Your task to perform on an android device: move a message to another label in the gmail app Image 0: 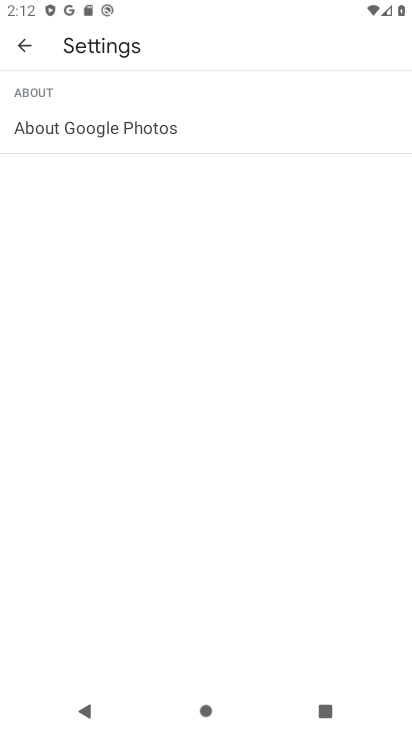
Step 0: press home button
Your task to perform on an android device: move a message to another label in the gmail app Image 1: 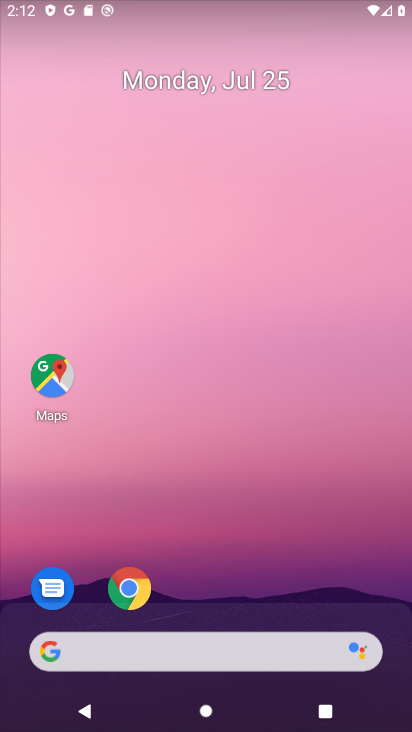
Step 1: drag from (217, 622) to (221, 3)
Your task to perform on an android device: move a message to another label in the gmail app Image 2: 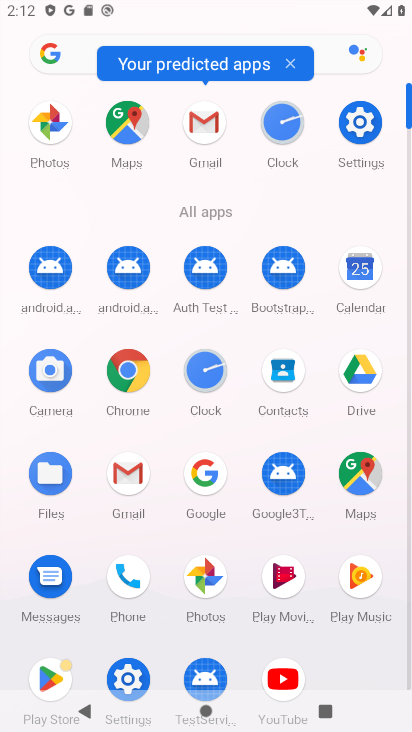
Step 2: click (125, 464)
Your task to perform on an android device: move a message to another label in the gmail app Image 3: 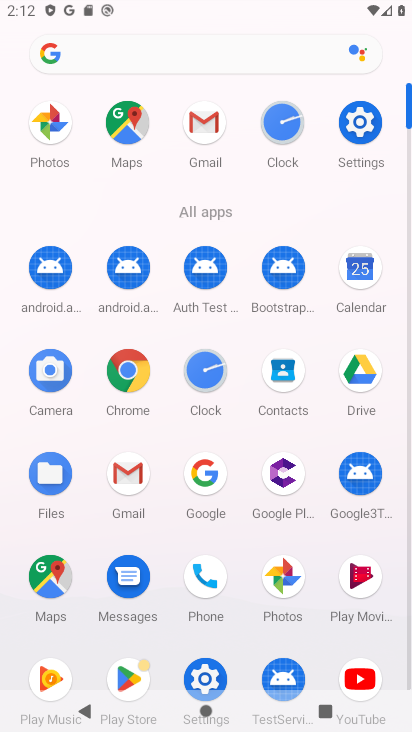
Step 3: click (123, 467)
Your task to perform on an android device: move a message to another label in the gmail app Image 4: 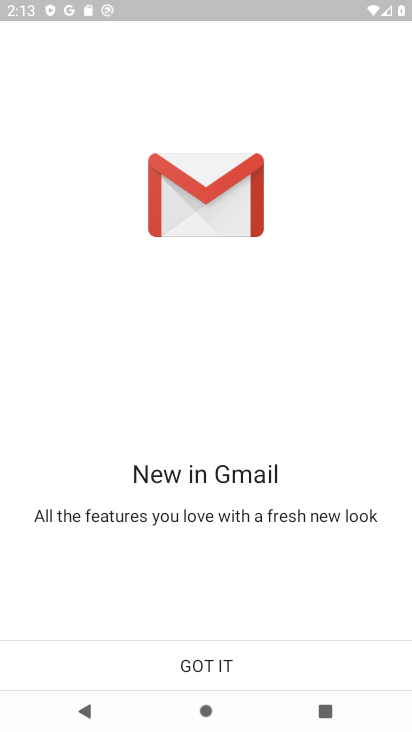
Step 4: click (212, 670)
Your task to perform on an android device: move a message to another label in the gmail app Image 5: 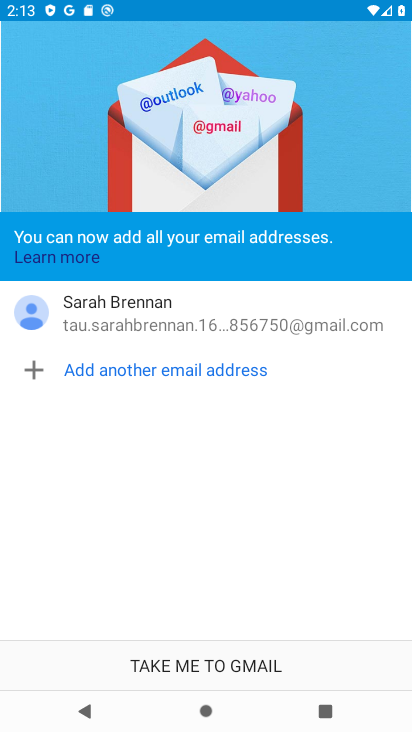
Step 5: click (209, 665)
Your task to perform on an android device: move a message to another label in the gmail app Image 6: 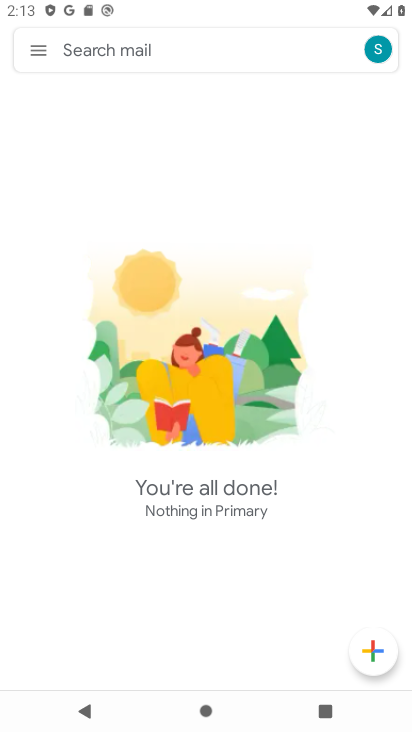
Step 6: task complete